Your task to perform on an android device: turn vacation reply on in the gmail app Image 0: 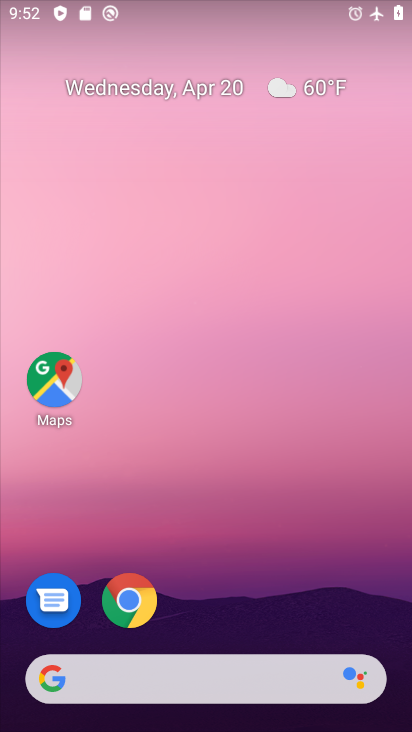
Step 0: click (163, 669)
Your task to perform on an android device: turn vacation reply on in the gmail app Image 1: 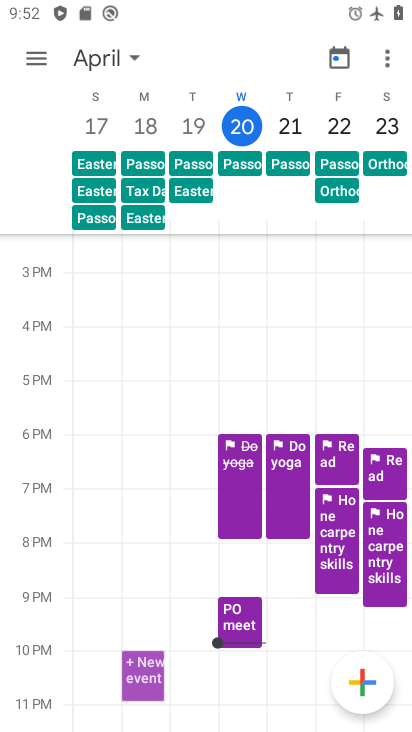
Step 1: press home button
Your task to perform on an android device: turn vacation reply on in the gmail app Image 2: 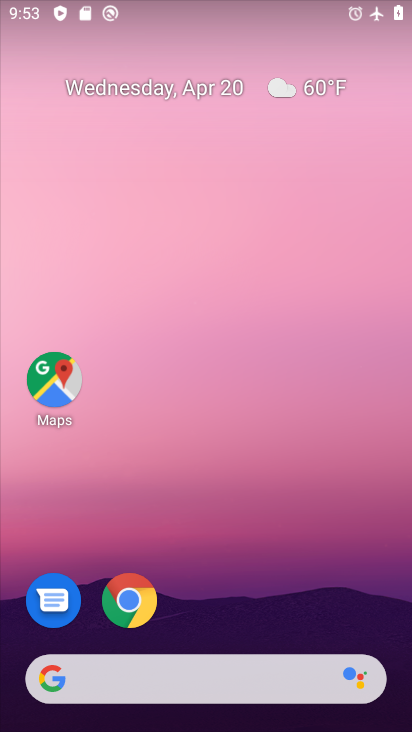
Step 2: drag from (218, 632) to (196, 52)
Your task to perform on an android device: turn vacation reply on in the gmail app Image 3: 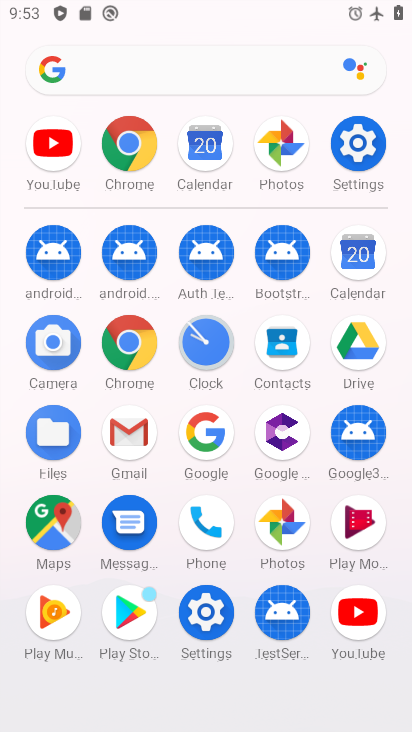
Step 3: click (116, 434)
Your task to perform on an android device: turn vacation reply on in the gmail app Image 4: 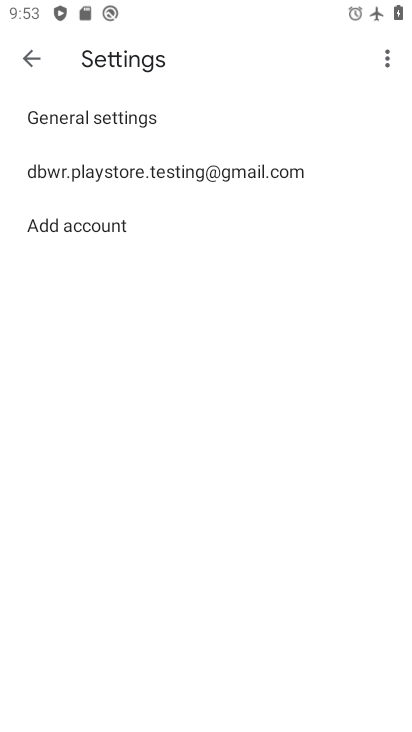
Step 4: click (110, 174)
Your task to perform on an android device: turn vacation reply on in the gmail app Image 5: 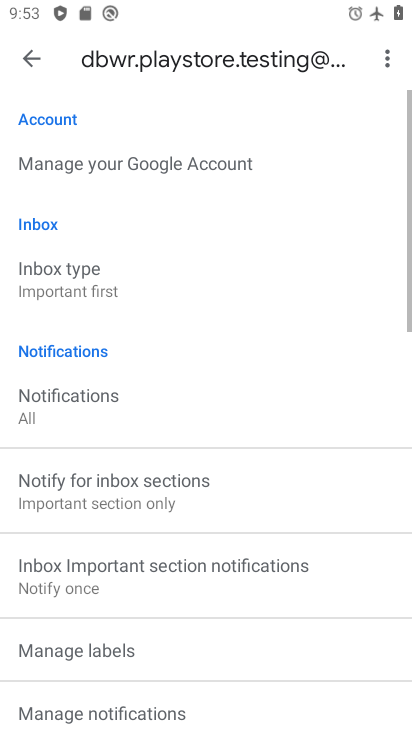
Step 5: drag from (135, 506) to (99, 23)
Your task to perform on an android device: turn vacation reply on in the gmail app Image 6: 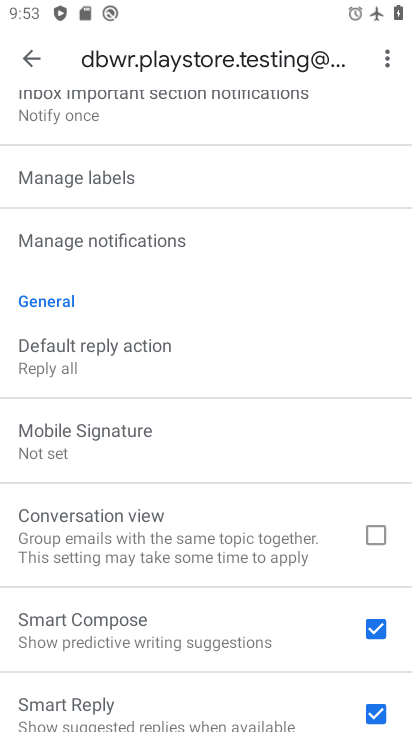
Step 6: drag from (159, 584) to (147, 126)
Your task to perform on an android device: turn vacation reply on in the gmail app Image 7: 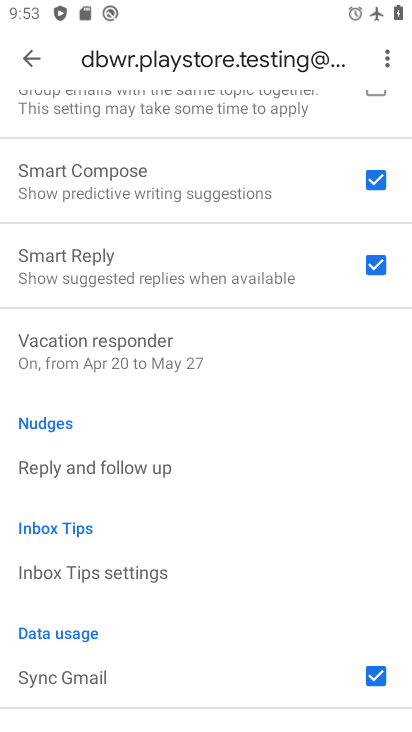
Step 7: click (96, 367)
Your task to perform on an android device: turn vacation reply on in the gmail app Image 8: 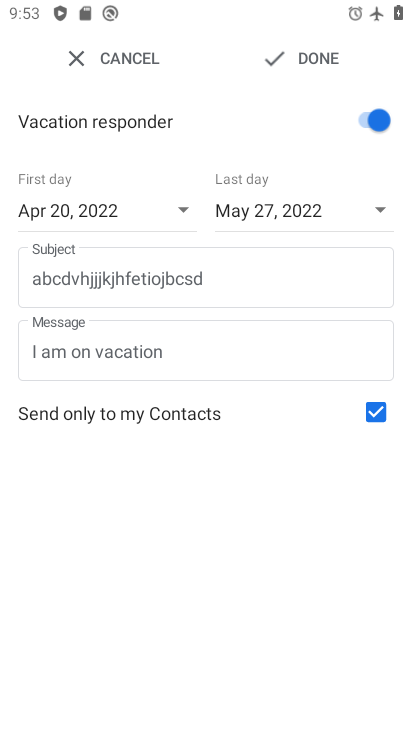
Step 8: click (289, 58)
Your task to perform on an android device: turn vacation reply on in the gmail app Image 9: 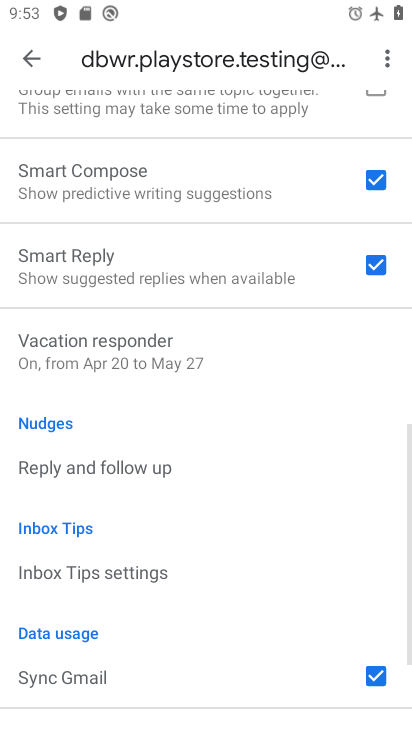
Step 9: task complete